Your task to perform on an android device: Go to settings Image 0: 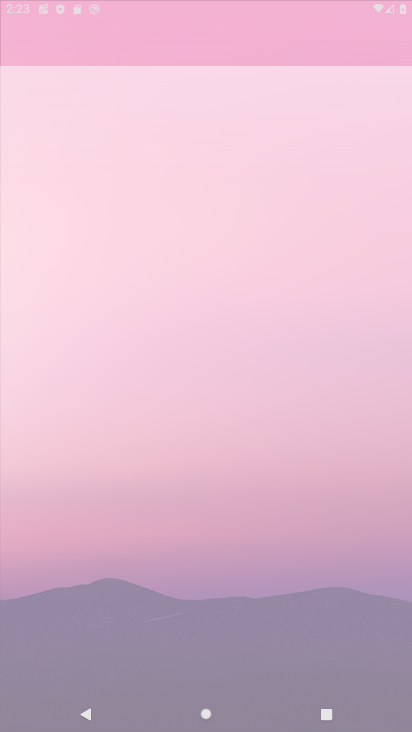
Step 0: click (316, 16)
Your task to perform on an android device: Go to settings Image 1: 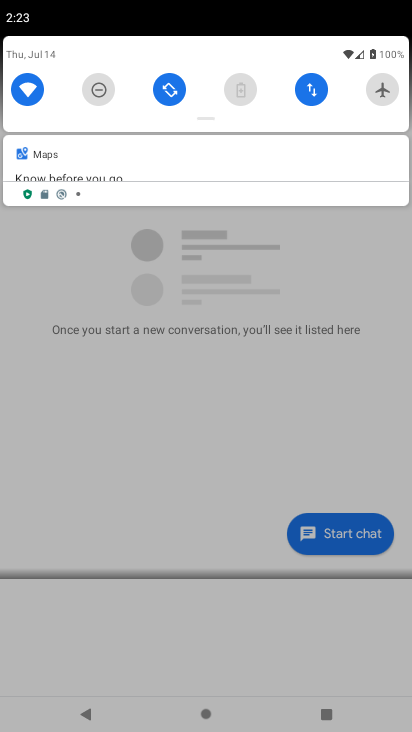
Step 1: press back button
Your task to perform on an android device: Go to settings Image 2: 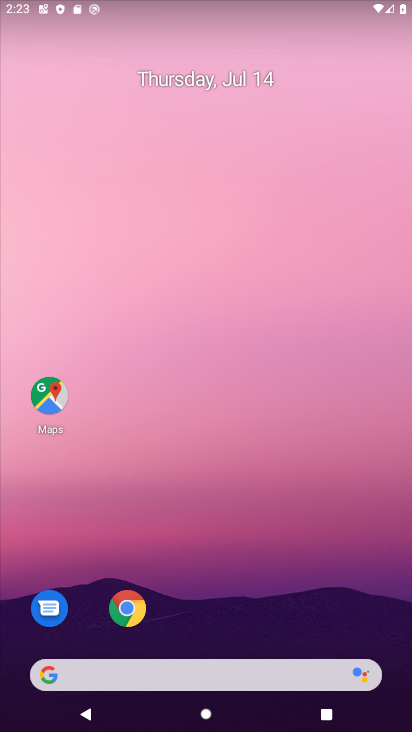
Step 2: drag from (202, 585) to (323, 5)
Your task to perform on an android device: Go to settings Image 3: 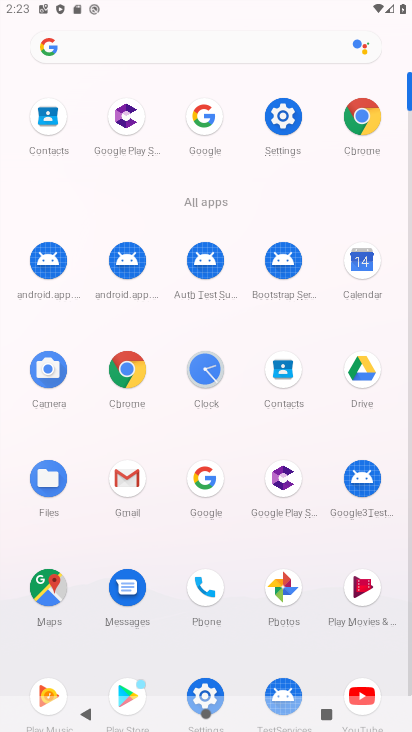
Step 3: click (286, 117)
Your task to perform on an android device: Go to settings Image 4: 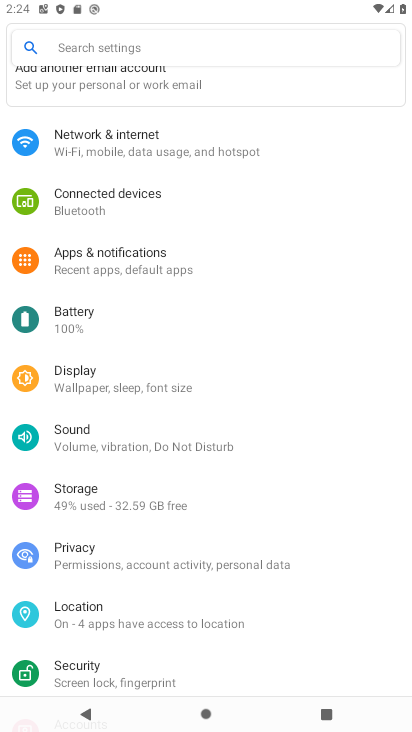
Step 4: task complete